Your task to perform on an android device: turn smart compose on in the gmail app Image 0: 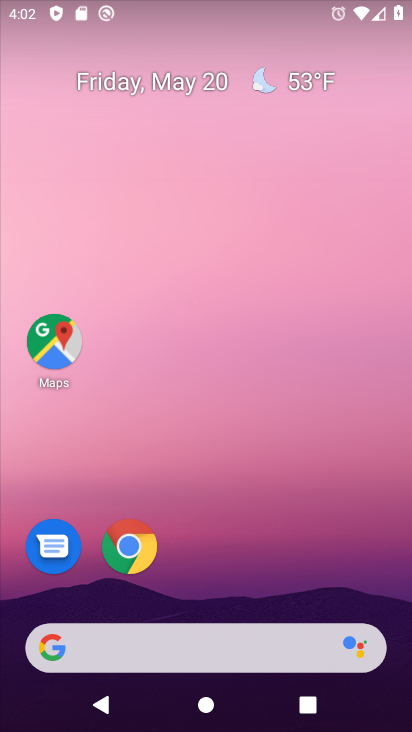
Step 0: drag from (305, 519) to (255, 117)
Your task to perform on an android device: turn smart compose on in the gmail app Image 1: 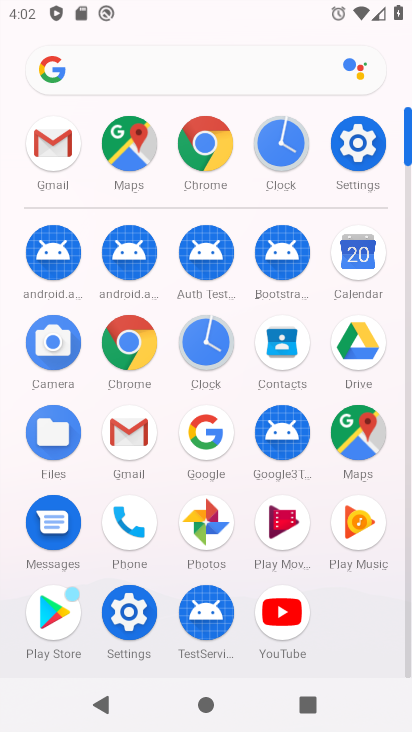
Step 1: click (136, 431)
Your task to perform on an android device: turn smart compose on in the gmail app Image 2: 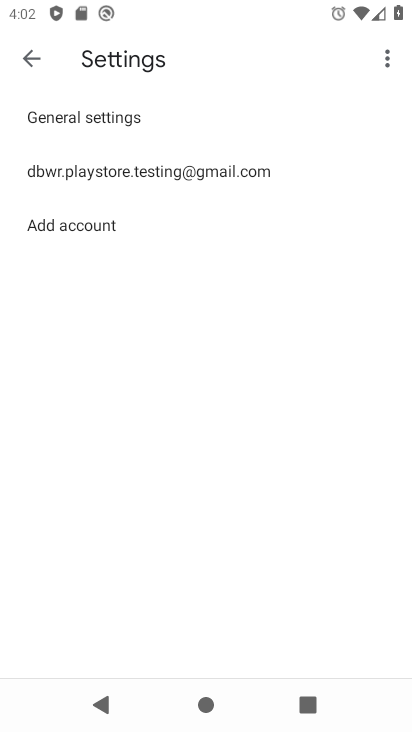
Step 2: click (155, 198)
Your task to perform on an android device: turn smart compose on in the gmail app Image 3: 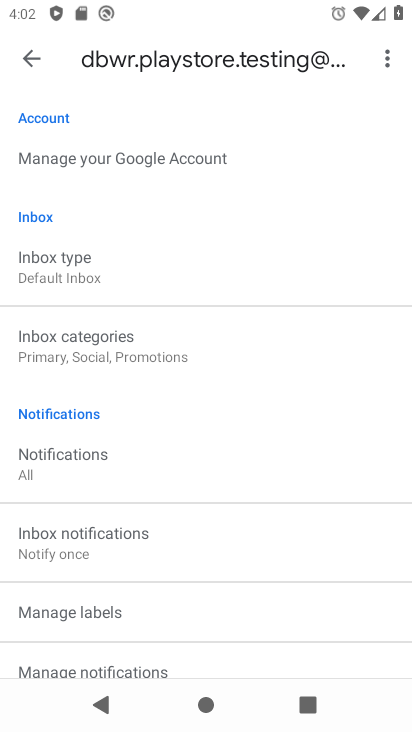
Step 3: task complete